Your task to perform on an android device: turn notification dots on Image 0: 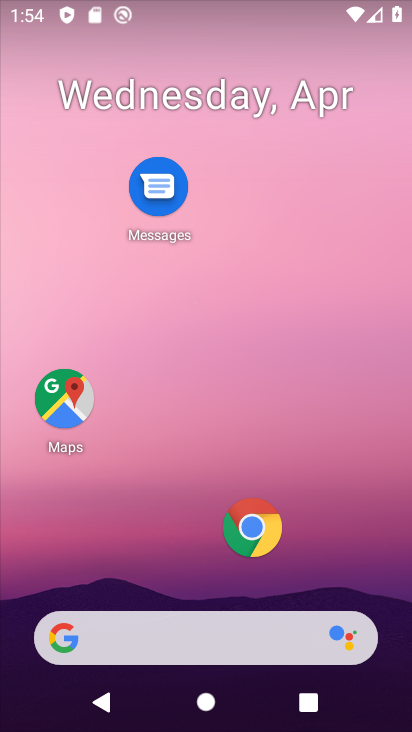
Step 0: drag from (227, 570) to (221, 168)
Your task to perform on an android device: turn notification dots on Image 1: 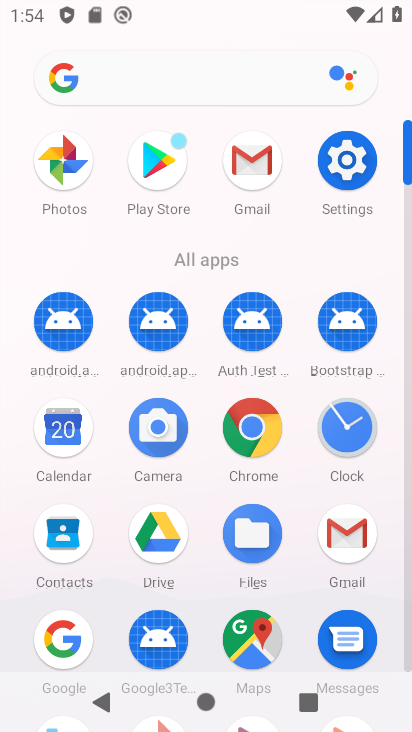
Step 1: click (355, 162)
Your task to perform on an android device: turn notification dots on Image 2: 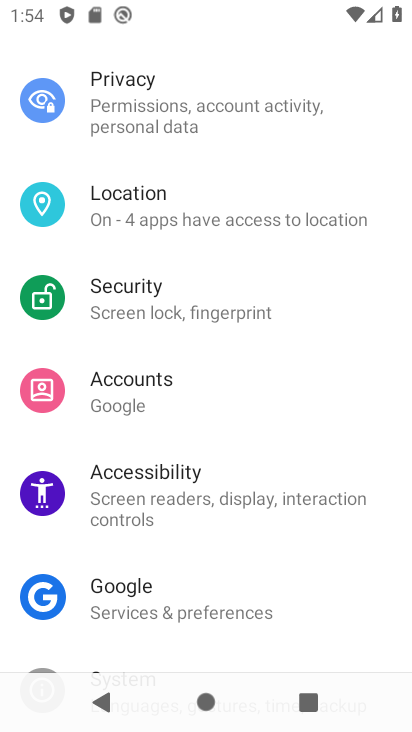
Step 2: drag from (183, 156) to (215, 568)
Your task to perform on an android device: turn notification dots on Image 3: 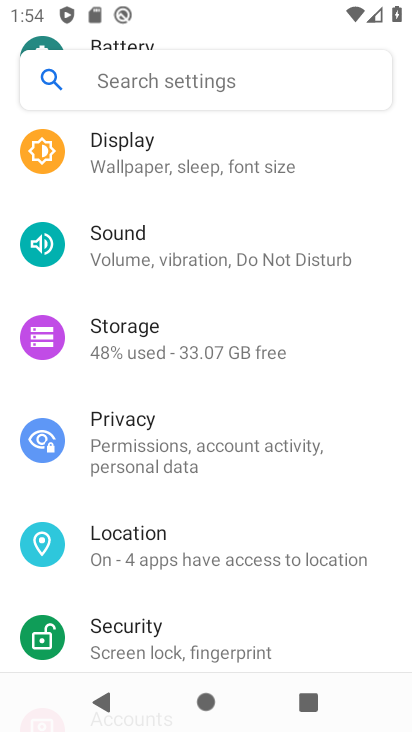
Step 3: drag from (188, 205) to (183, 491)
Your task to perform on an android device: turn notification dots on Image 4: 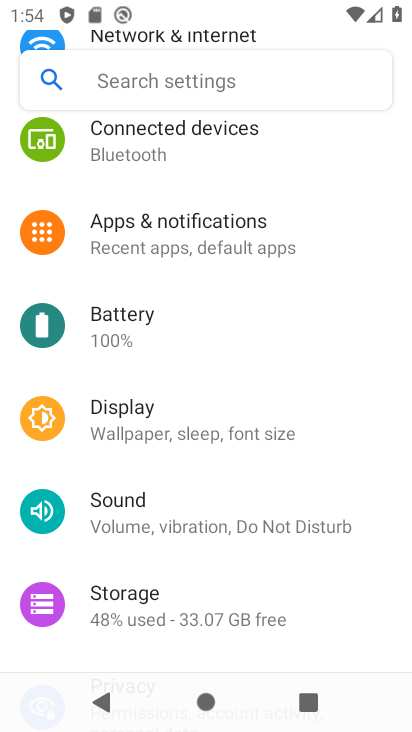
Step 4: click (216, 216)
Your task to perform on an android device: turn notification dots on Image 5: 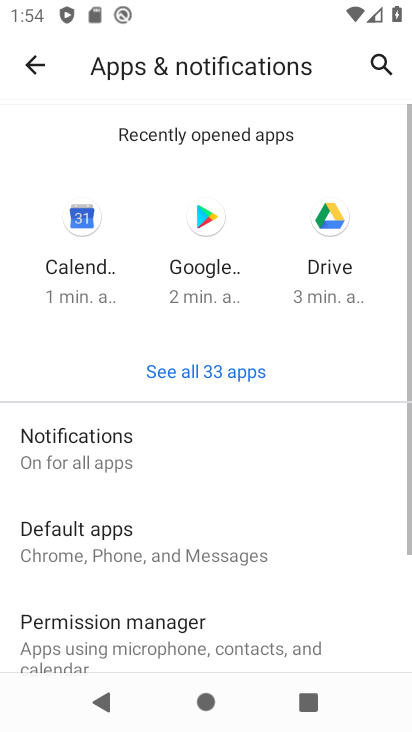
Step 5: drag from (134, 581) to (168, 285)
Your task to perform on an android device: turn notification dots on Image 6: 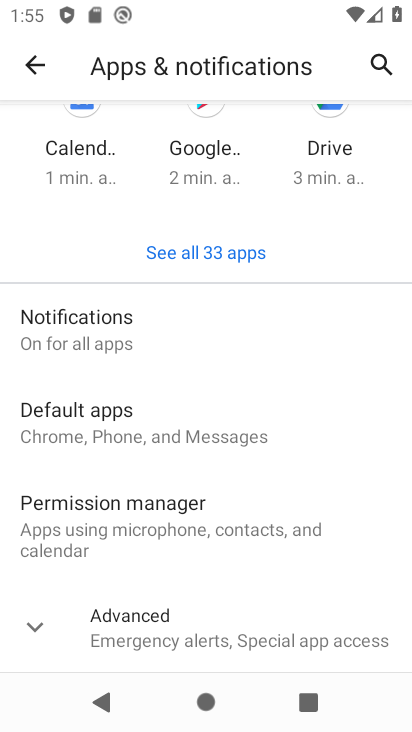
Step 6: drag from (142, 559) to (133, 449)
Your task to perform on an android device: turn notification dots on Image 7: 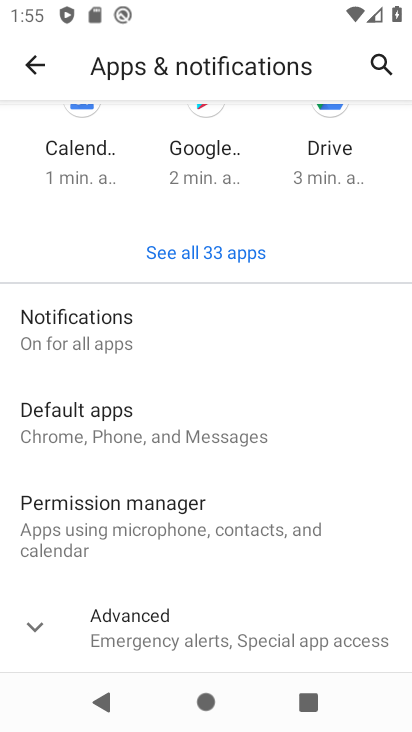
Step 7: click (86, 345)
Your task to perform on an android device: turn notification dots on Image 8: 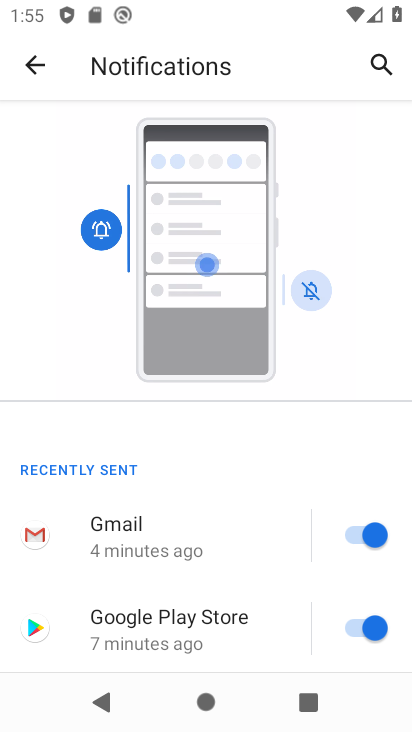
Step 8: drag from (213, 583) to (241, 196)
Your task to perform on an android device: turn notification dots on Image 9: 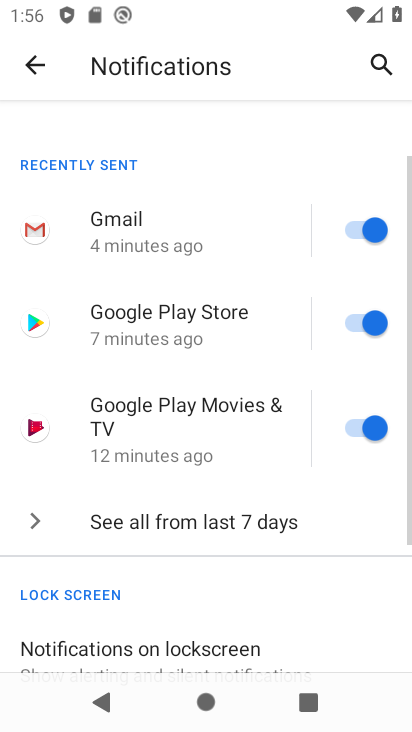
Step 9: drag from (173, 575) to (217, 281)
Your task to perform on an android device: turn notification dots on Image 10: 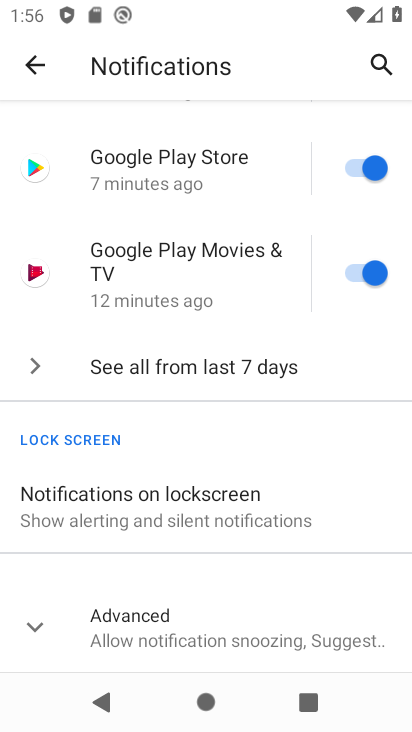
Step 10: drag from (180, 597) to (216, 374)
Your task to perform on an android device: turn notification dots on Image 11: 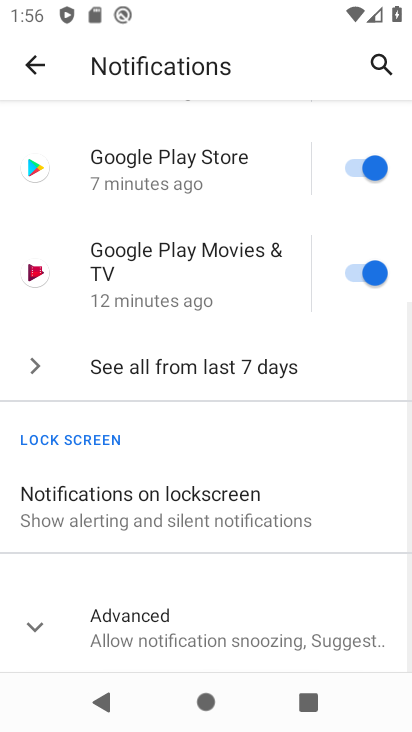
Step 11: click (20, 627)
Your task to perform on an android device: turn notification dots on Image 12: 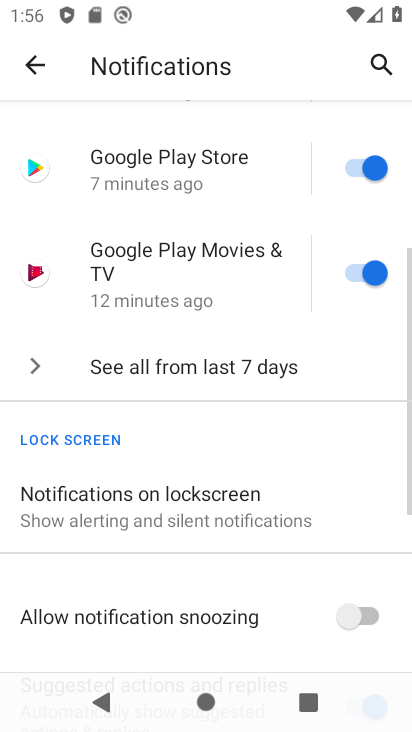
Step 12: task complete